Your task to perform on an android device: find snoozed emails in the gmail app Image 0: 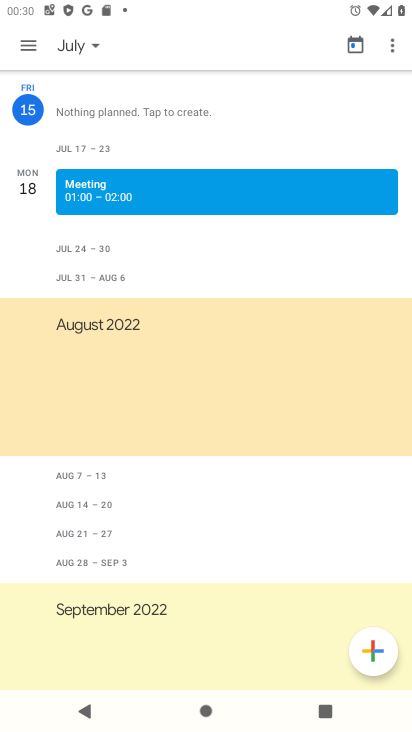
Step 0: press home button
Your task to perform on an android device: find snoozed emails in the gmail app Image 1: 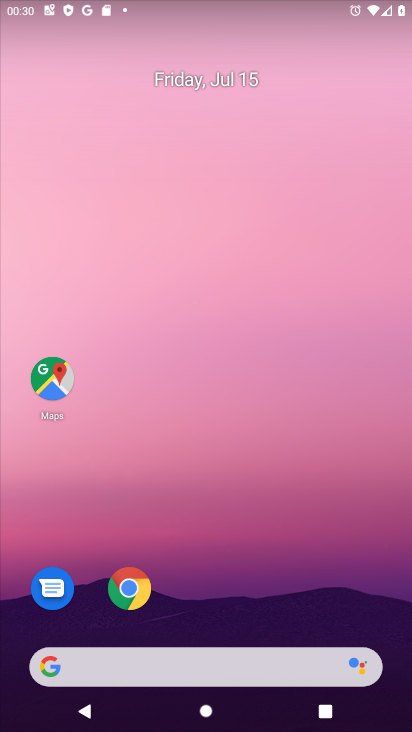
Step 1: drag from (164, 671) to (332, 162)
Your task to perform on an android device: find snoozed emails in the gmail app Image 2: 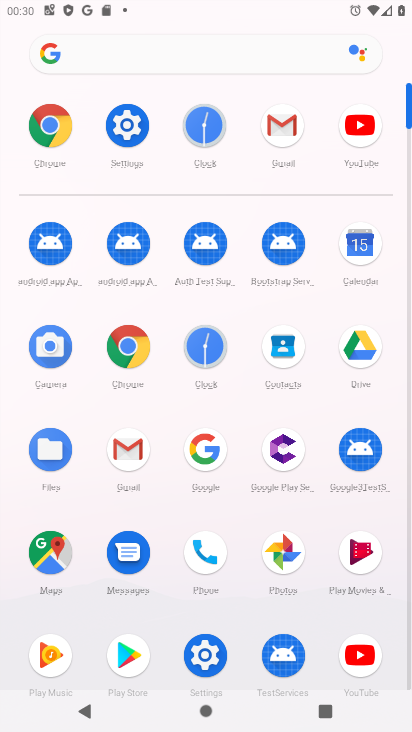
Step 2: click (280, 130)
Your task to perform on an android device: find snoozed emails in the gmail app Image 3: 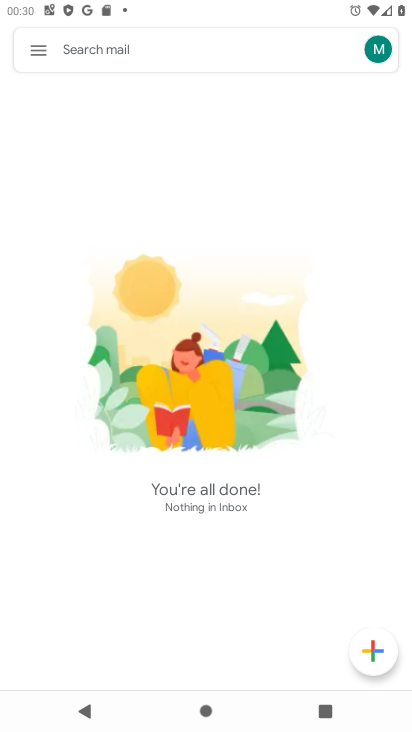
Step 3: click (36, 52)
Your task to perform on an android device: find snoozed emails in the gmail app Image 4: 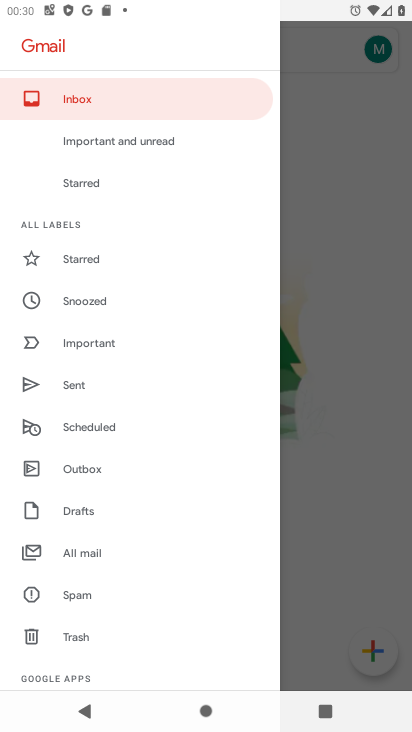
Step 4: click (97, 304)
Your task to perform on an android device: find snoozed emails in the gmail app Image 5: 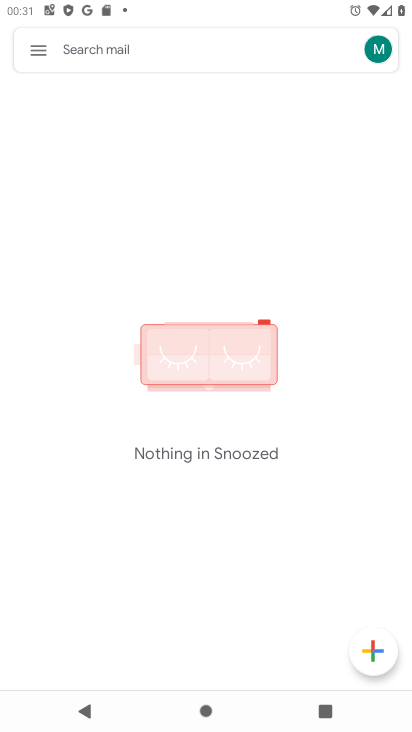
Step 5: task complete